Your task to perform on an android device: Go to network settings Image 0: 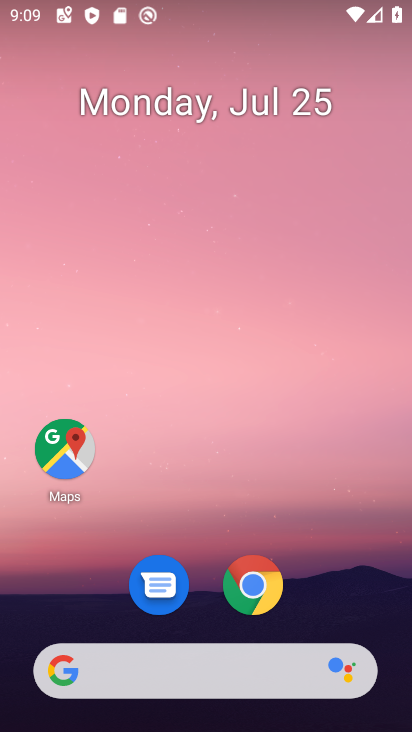
Step 0: drag from (197, 601) to (321, 10)
Your task to perform on an android device: Go to network settings Image 1: 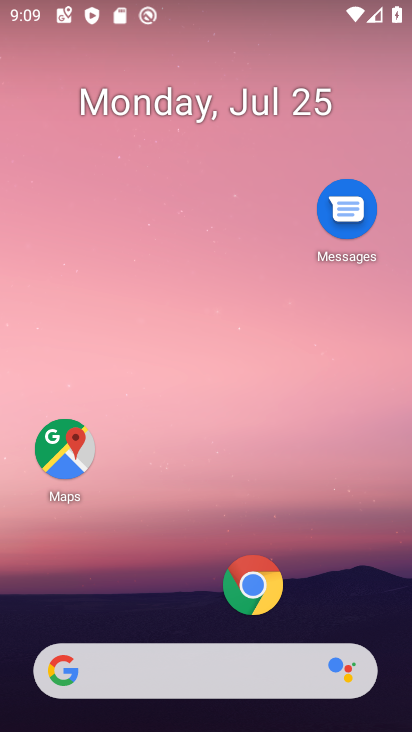
Step 1: drag from (193, 677) to (327, 70)
Your task to perform on an android device: Go to network settings Image 2: 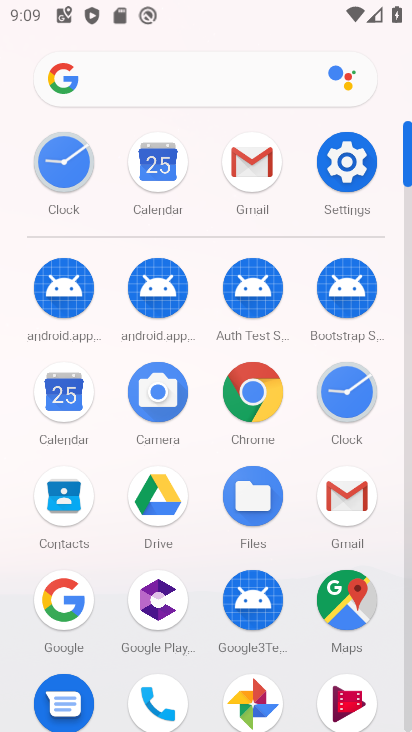
Step 2: click (343, 176)
Your task to perform on an android device: Go to network settings Image 3: 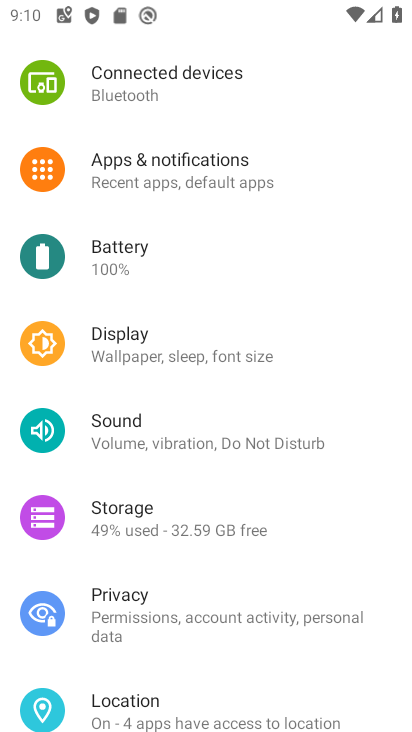
Step 3: drag from (324, 105) to (246, 631)
Your task to perform on an android device: Go to network settings Image 4: 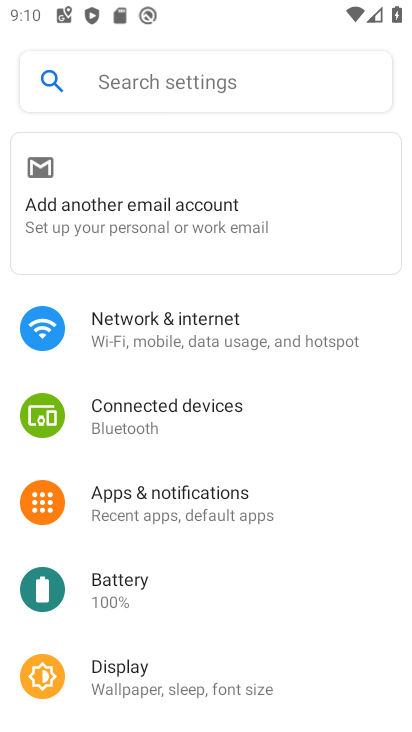
Step 4: click (188, 312)
Your task to perform on an android device: Go to network settings Image 5: 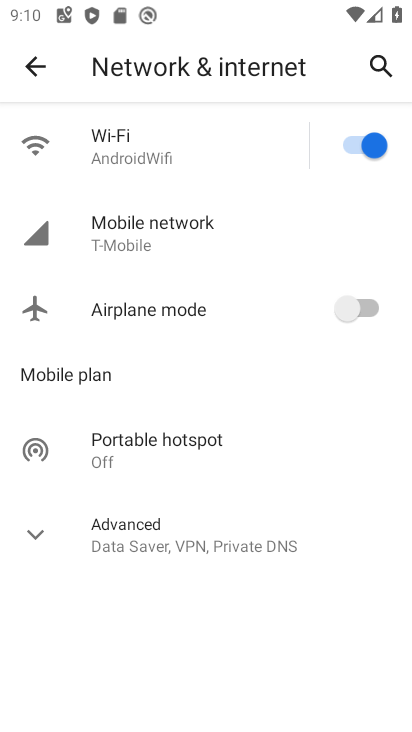
Step 5: click (177, 231)
Your task to perform on an android device: Go to network settings Image 6: 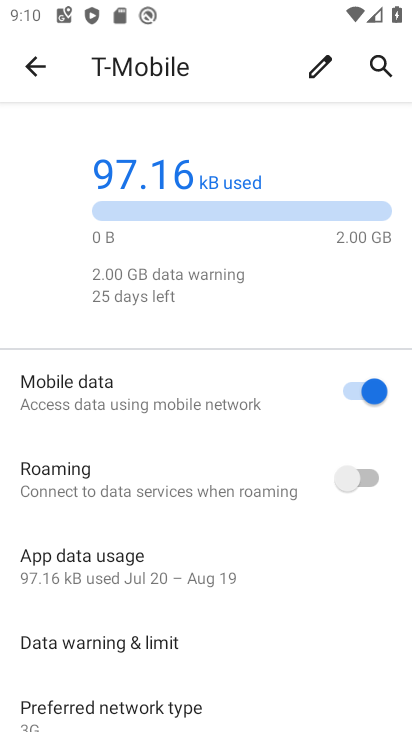
Step 6: task complete